Your task to perform on an android device: turn on improve location accuracy Image 0: 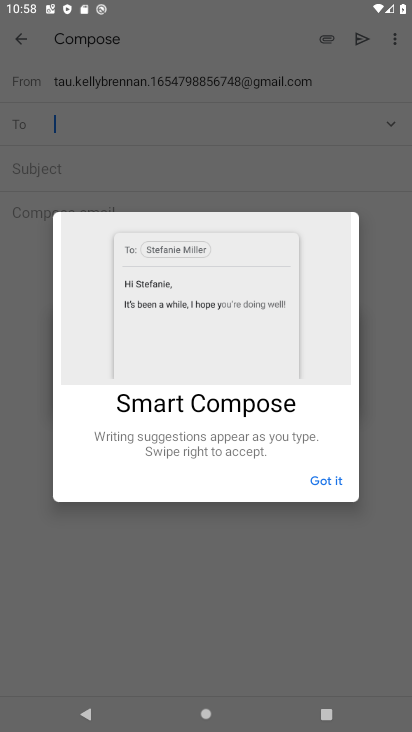
Step 0: press home button
Your task to perform on an android device: turn on improve location accuracy Image 1: 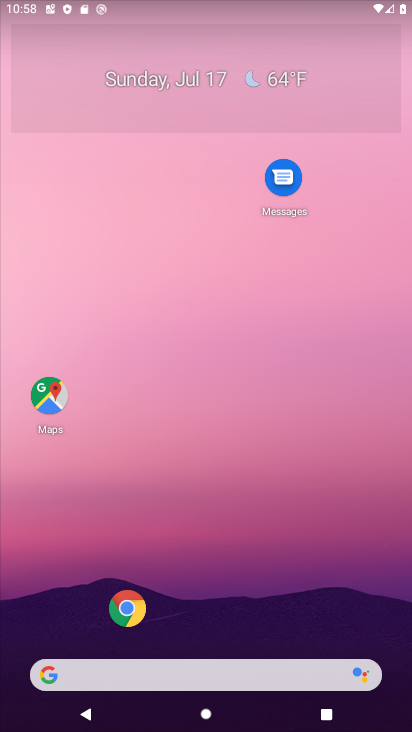
Step 1: drag from (5, 685) to (339, 229)
Your task to perform on an android device: turn on improve location accuracy Image 2: 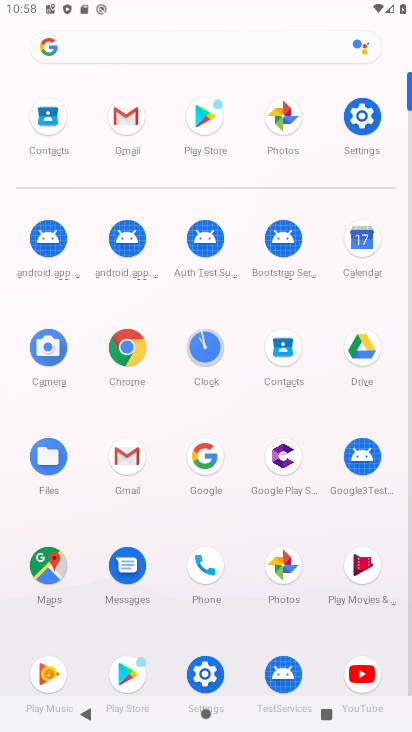
Step 2: click (197, 655)
Your task to perform on an android device: turn on improve location accuracy Image 3: 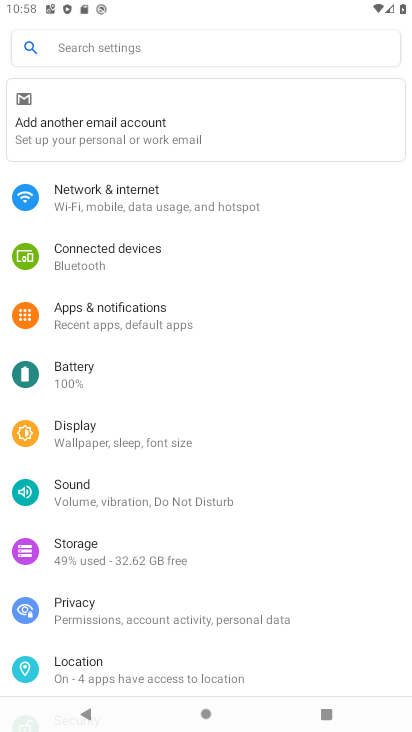
Step 3: click (83, 677)
Your task to perform on an android device: turn on improve location accuracy Image 4: 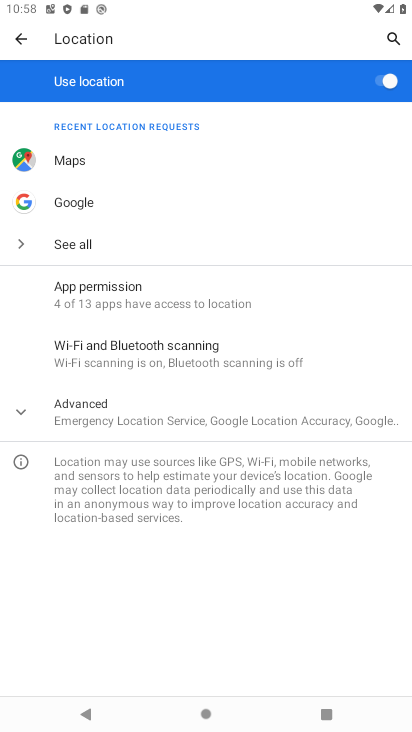
Step 4: click (100, 423)
Your task to perform on an android device: turn on improve location accuracy Image 5: 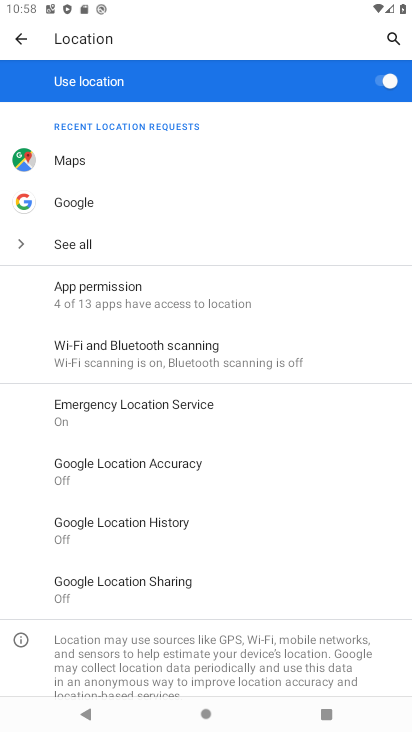
Step 5: click (185, 458)
Your task to perform on an android device: turn on improve location accuracy Image 6: 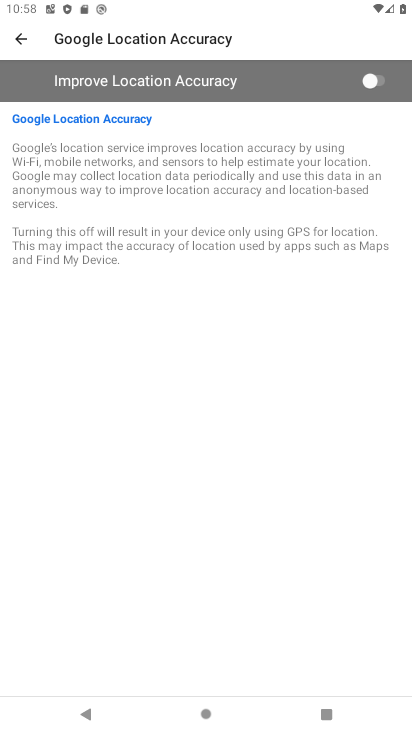
Step 6: click (380, 81)
Your task to perform on an android device: turn on improve location accuracy Image 7: 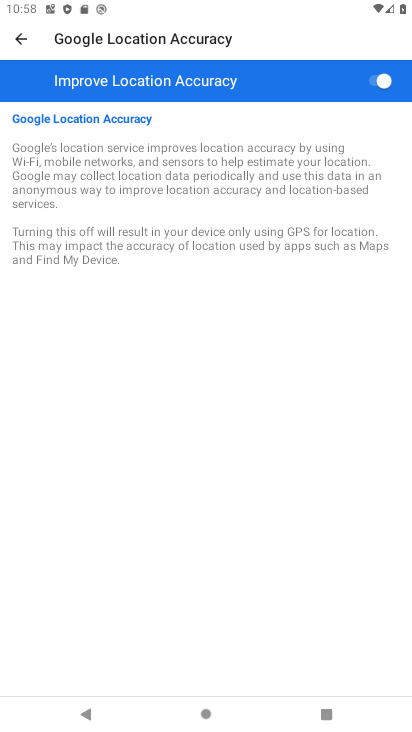
Step 7: task complete